Your task to perform on an android device: Open the Play Movies app and select the watchlist tab. Image 0: 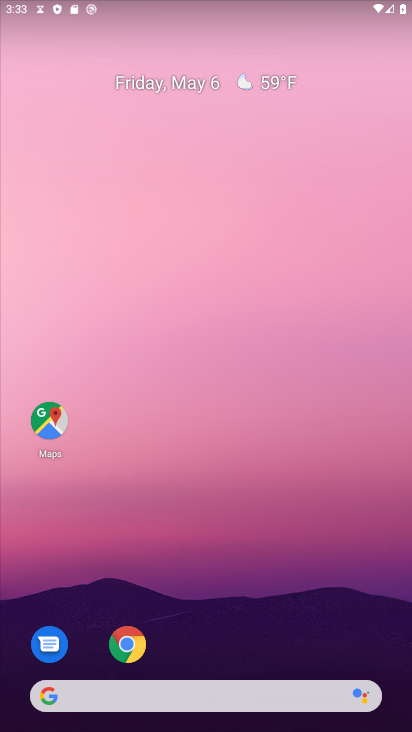
Step 0: drag from (221, 594) to (249, 64)
Your task to perform on an android device: Open the Play Movies app and select the watchlist tab. Image 1: 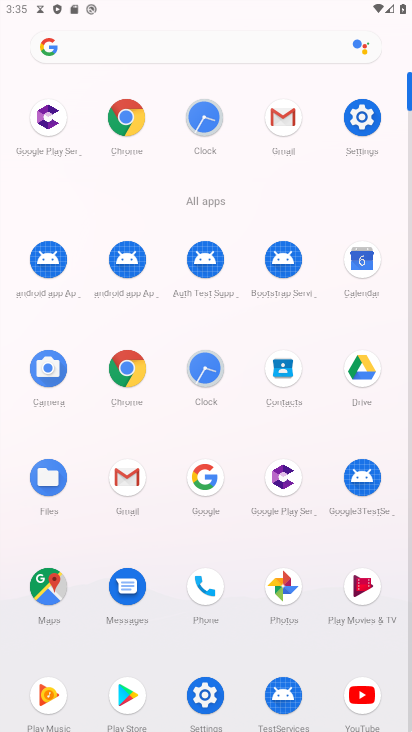
Step 1: click (366, 588)
Your task to perform on an android device: Open the Play Movies app and select the watchlist tab. Image 2: 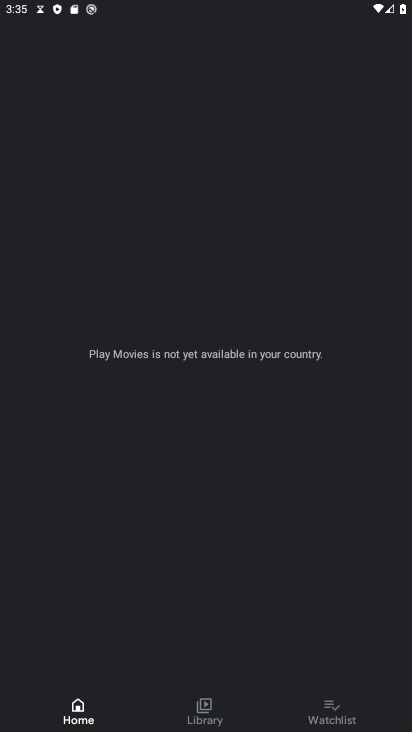
Step 2: click (348, 723)
Your task to perform on an android device: Open the Play Movies app and select the watchlist tab. Image 3: 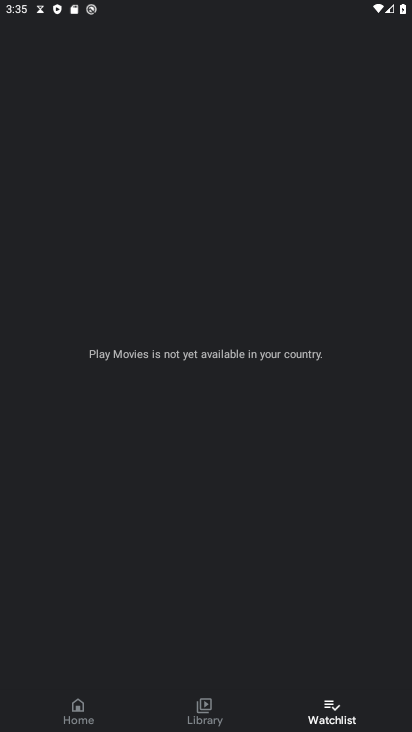
Step 3: task complete